Your task to perform on an android device: empty trash in the gmail app Image 0: 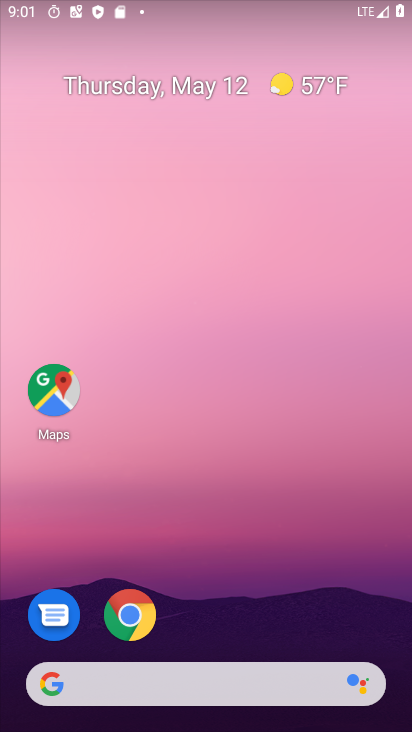
Step 0: drag from (244, 461) to (89, 448)
Your task to perform on an android device: empty trash in the gmail app Image 1: 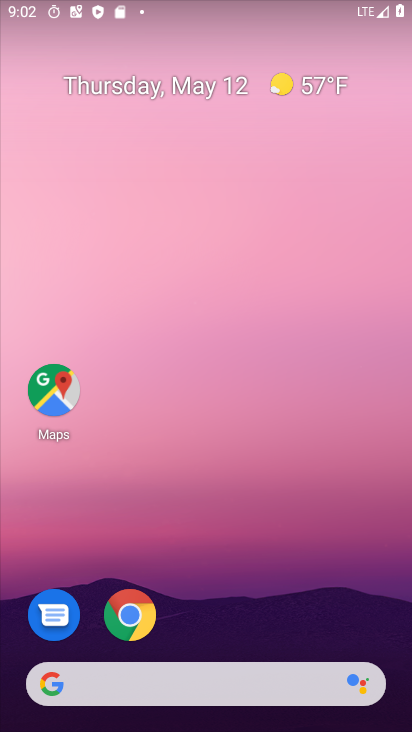
Step 1: drag from (262, 610) to (186, 0)
Your task to perform on an android device: empty trash in the gmail app Image 2: 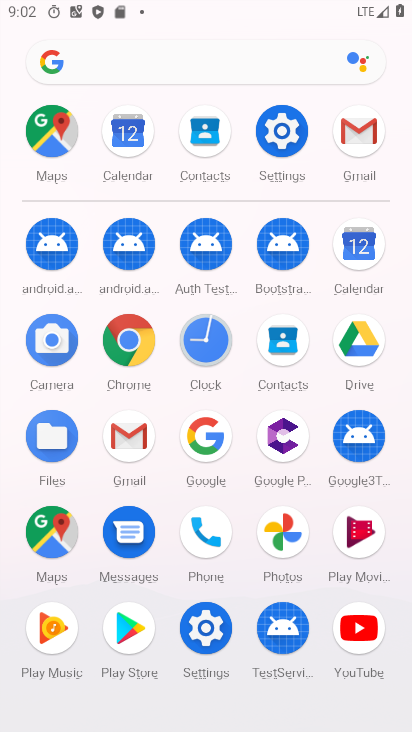
Step 2: drag from (10, 501) to (9, 197)
Your task to perform on an android device: empty trash in the gmail app Image 3: 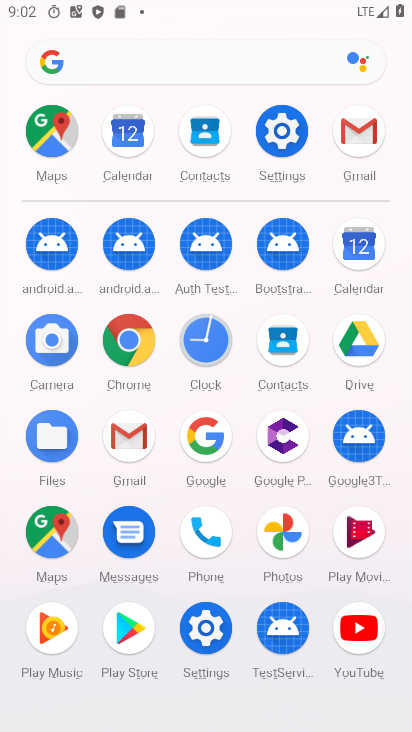
Step 3: drag from (3, 472) to (7, 213)
Your task to perform on an android device: empty trash in the gmail app Image 4: 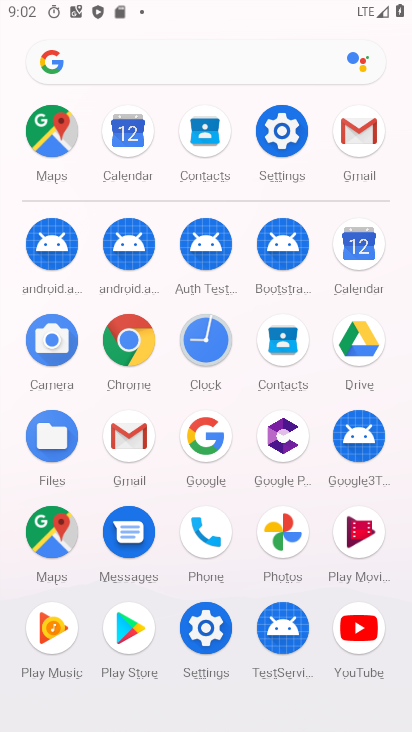
Step 4: click (125, 431)
Your task to perform on an android device: empty trash in the gmail app Image 5: 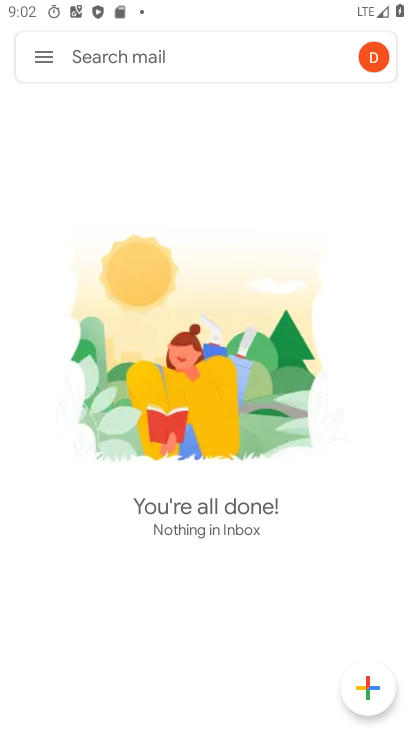
Step 5: click (36, 56)
Your task to perform on an android device: empty trash in the gmail app Image 6: 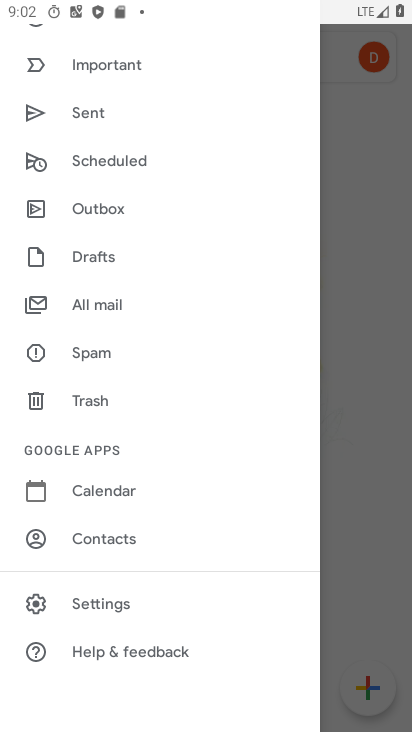
Step 6: click (112, 396)
Your task to perform on an android device: empty trash in the gmail app Image 7: 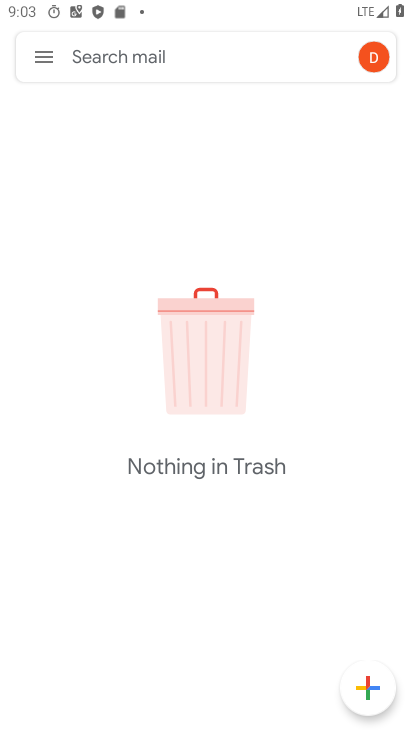
Step 7: task complete